Your task to perform on an android device: Add "energizer triple a" to the cart on bestbuy, then select checkout. Image 0: 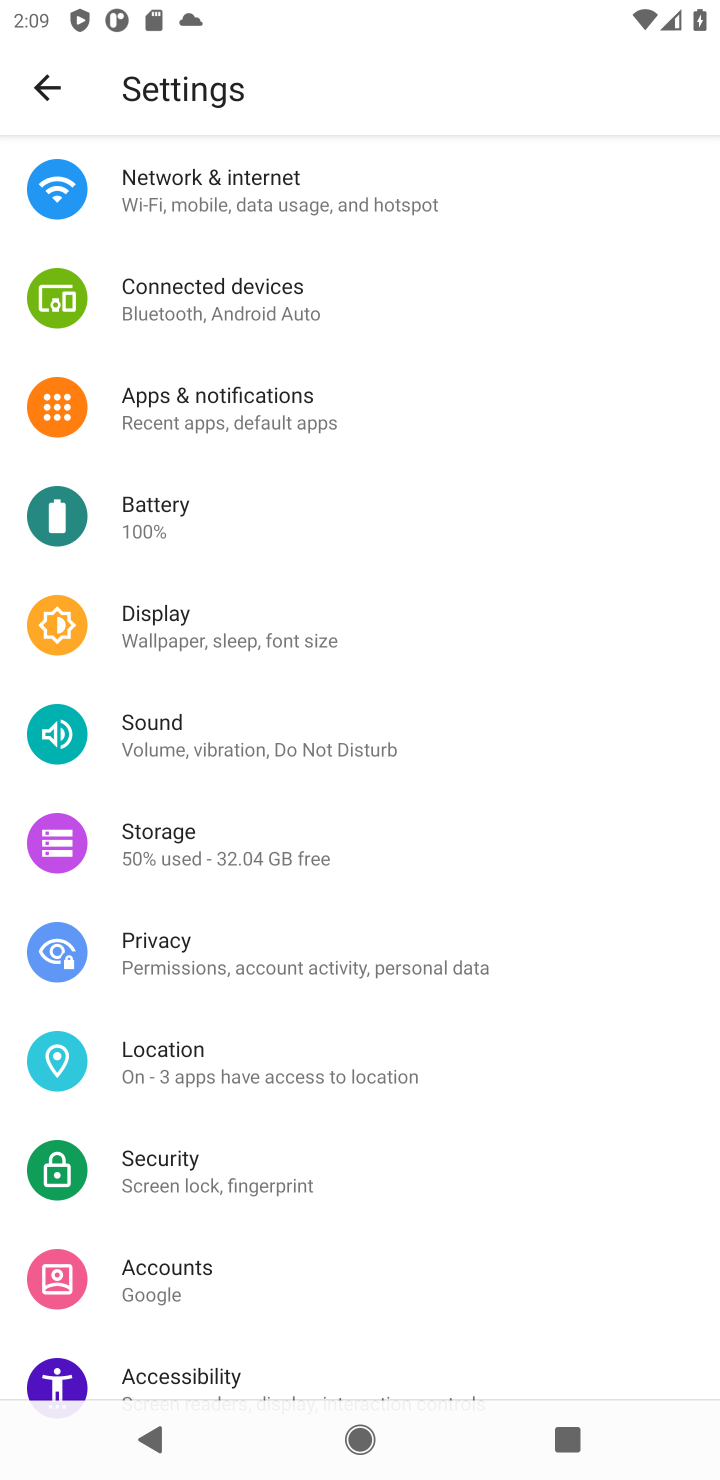
Step 0: press home button
Your task to perform on an android device: Add "energizer triple a" to the cart on bestbuy, then select checkout. Image 1: 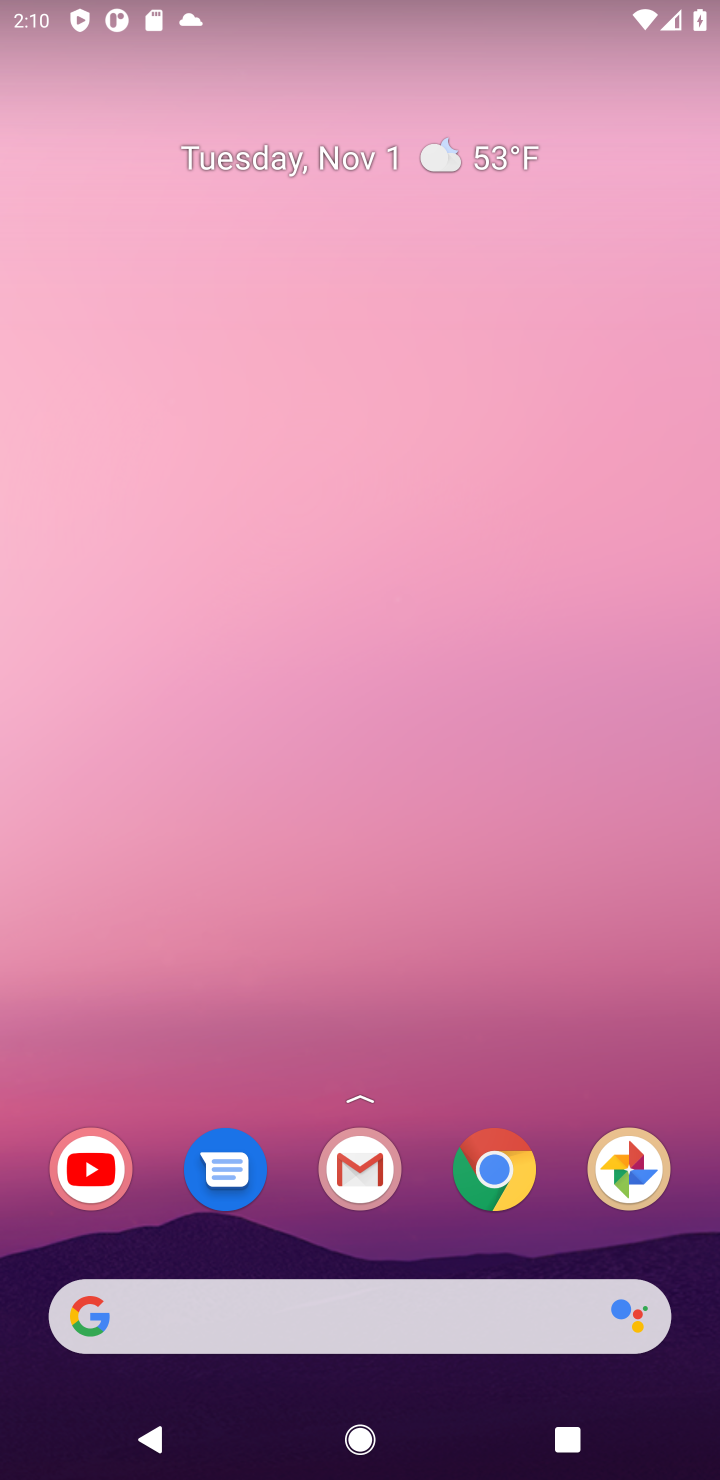
Step 1: click (505, 1184)
Your task to perform on an android device: Add "energizer triple a" to the cart on bestbuy, then select checkout. Image 2: 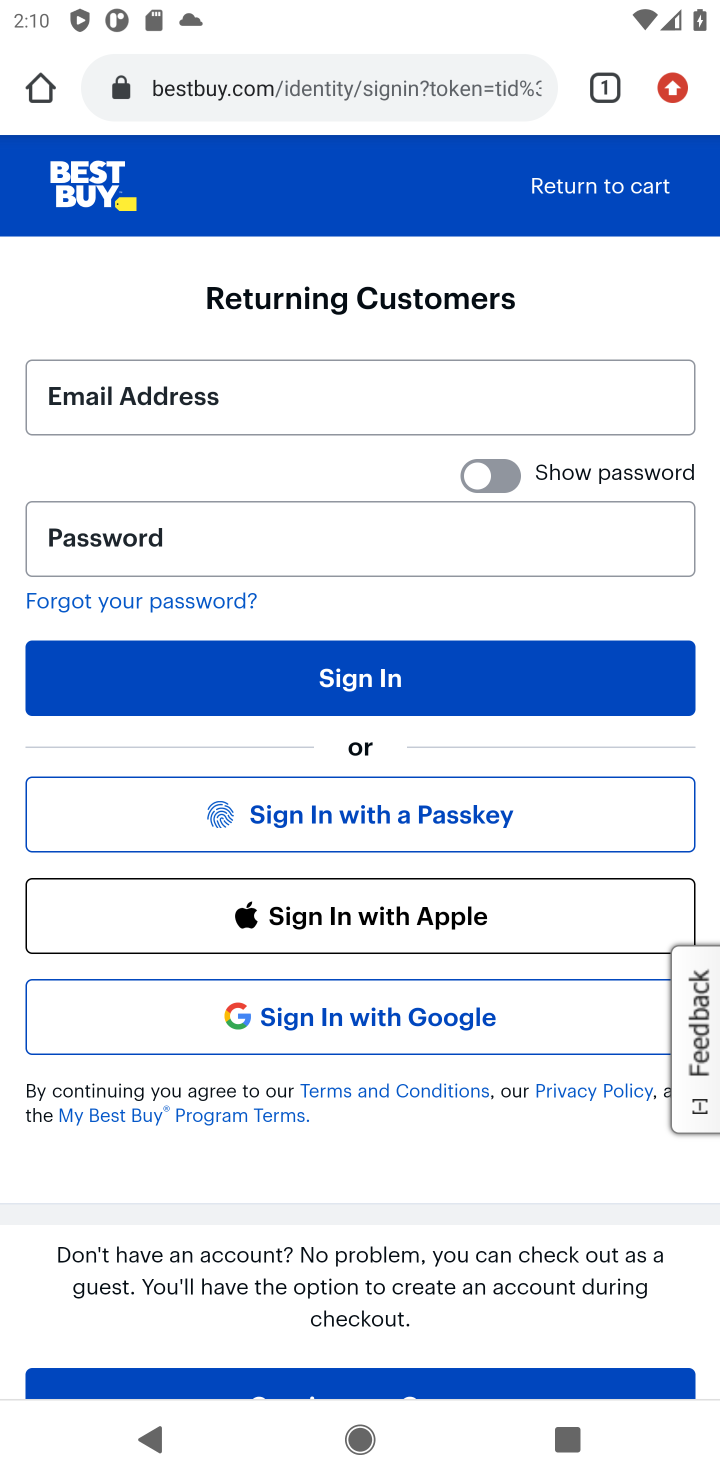
Step 2: click (583, 181)
Your task to perform on an android device: Add "energizer triple a" to the cart on bestbuy, then select checkout. Image 3: 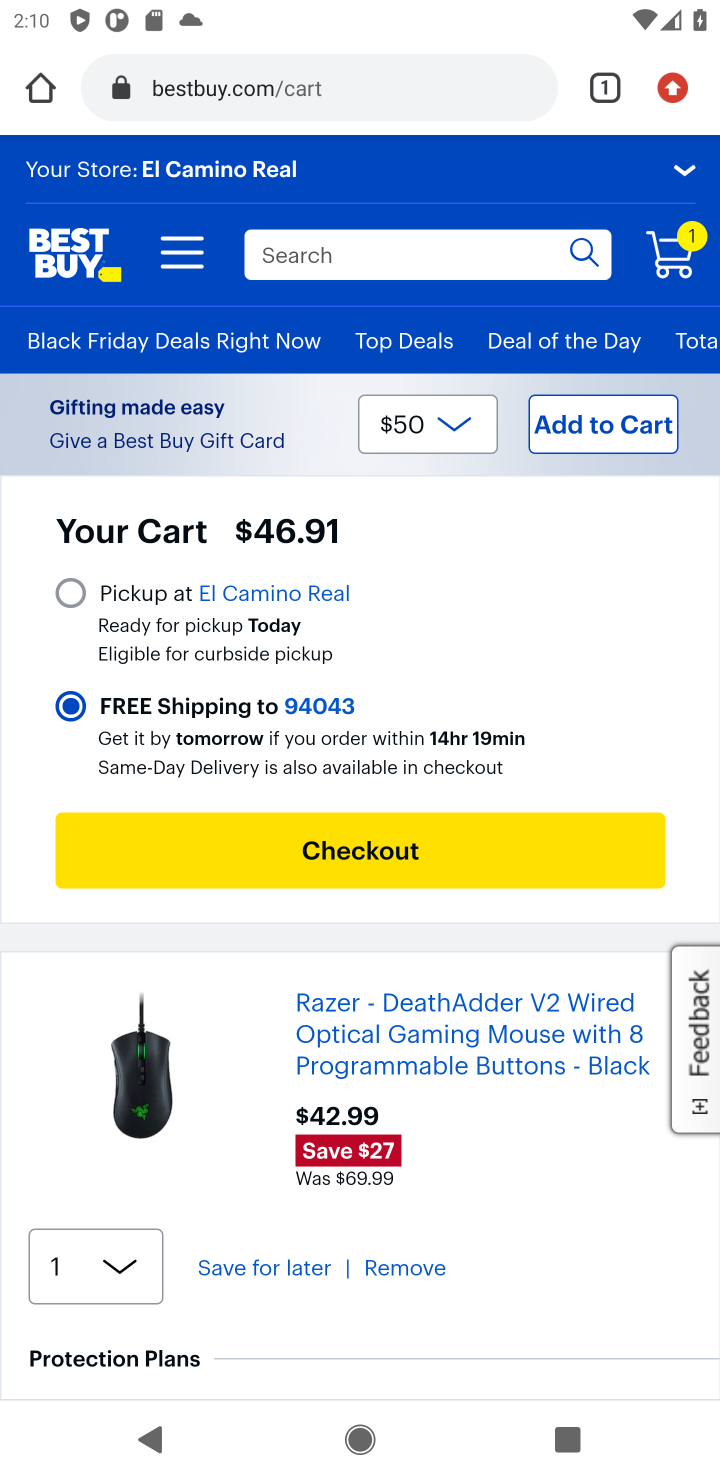
Step 3: click (265, 69)
Your task to perform on an android device: Add "energizer triple a" to the cart on bestbuy, then select checkout. Image 4: 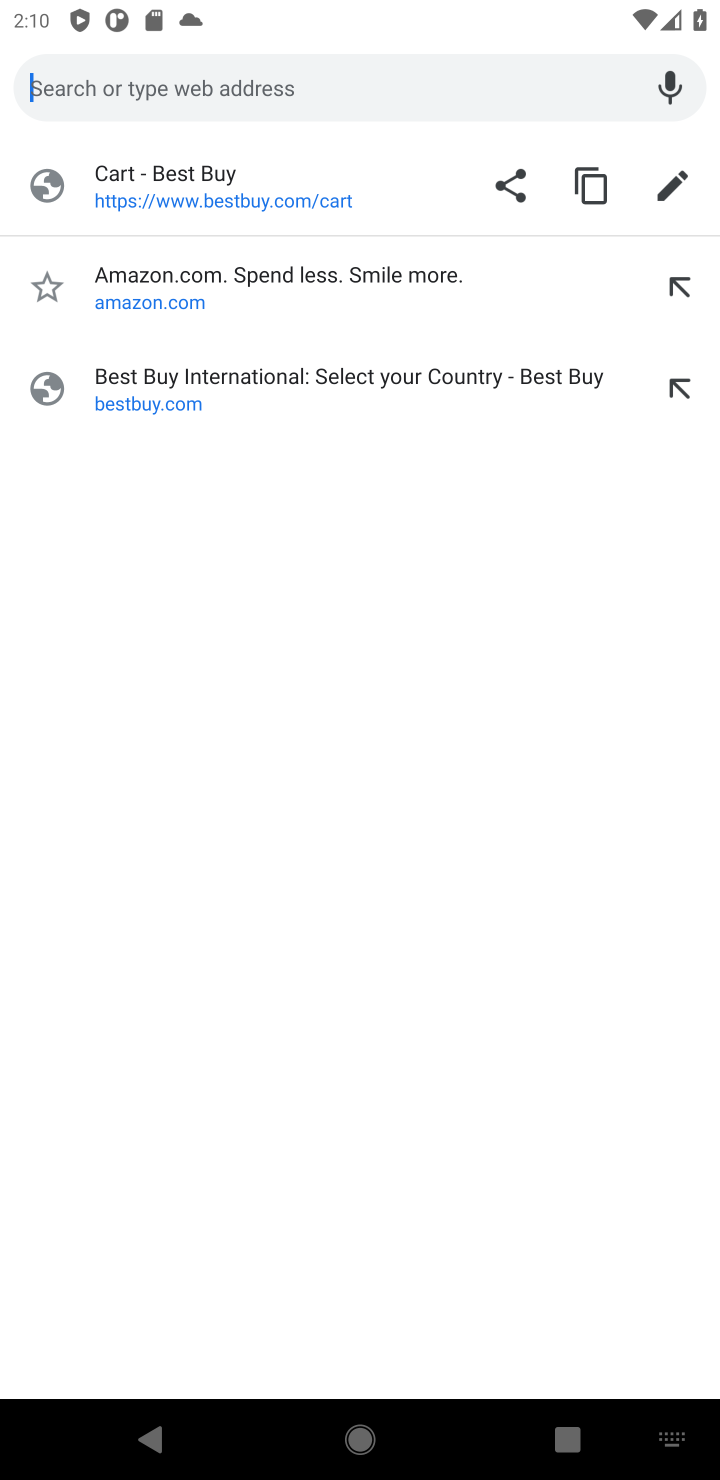
Step 4: click (432, 235)
Your task to perform on an android device: Add "energizer triple a" to the cart on bestbuy, then select checkout. Image 5: 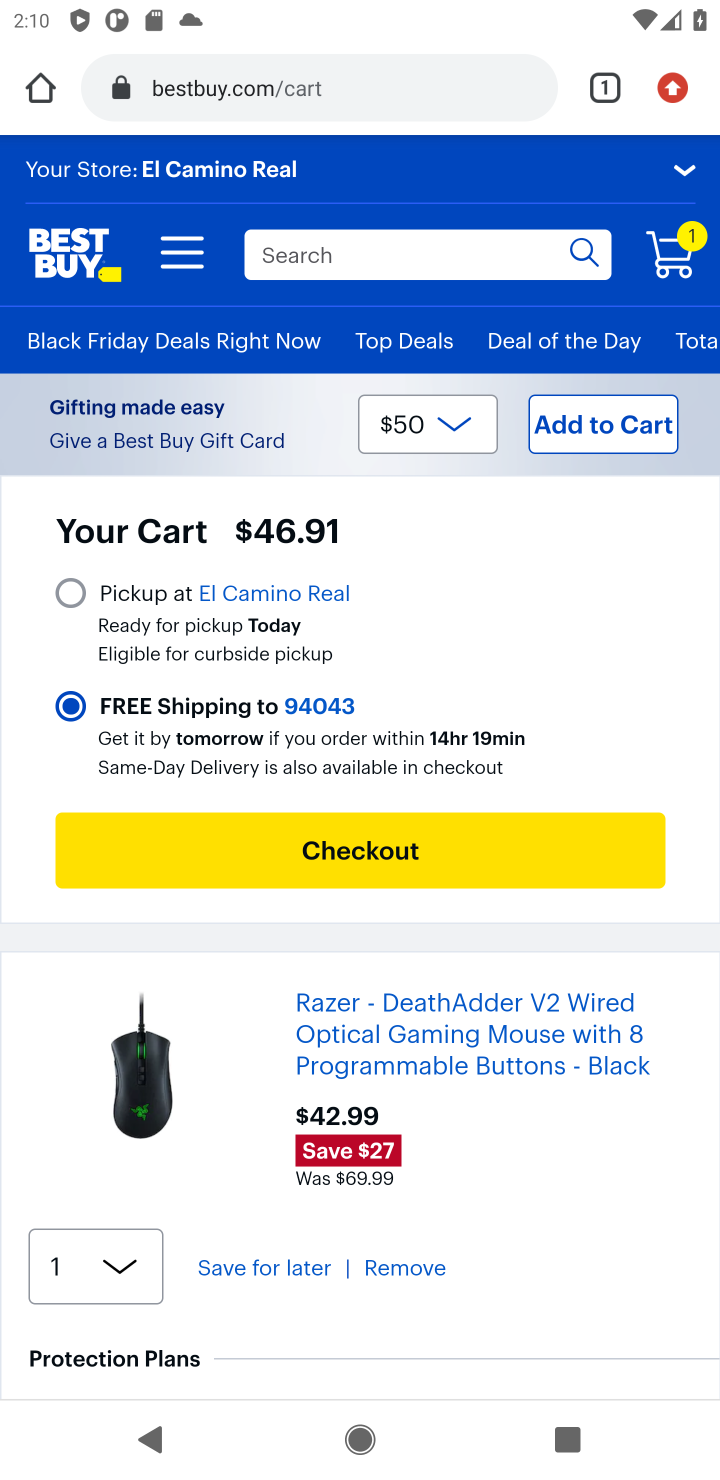
Step 5: press back button
Your task to perform on an android device: Add "energizer triple a" to the cart on bestbuy, then select checkout. Image 6: 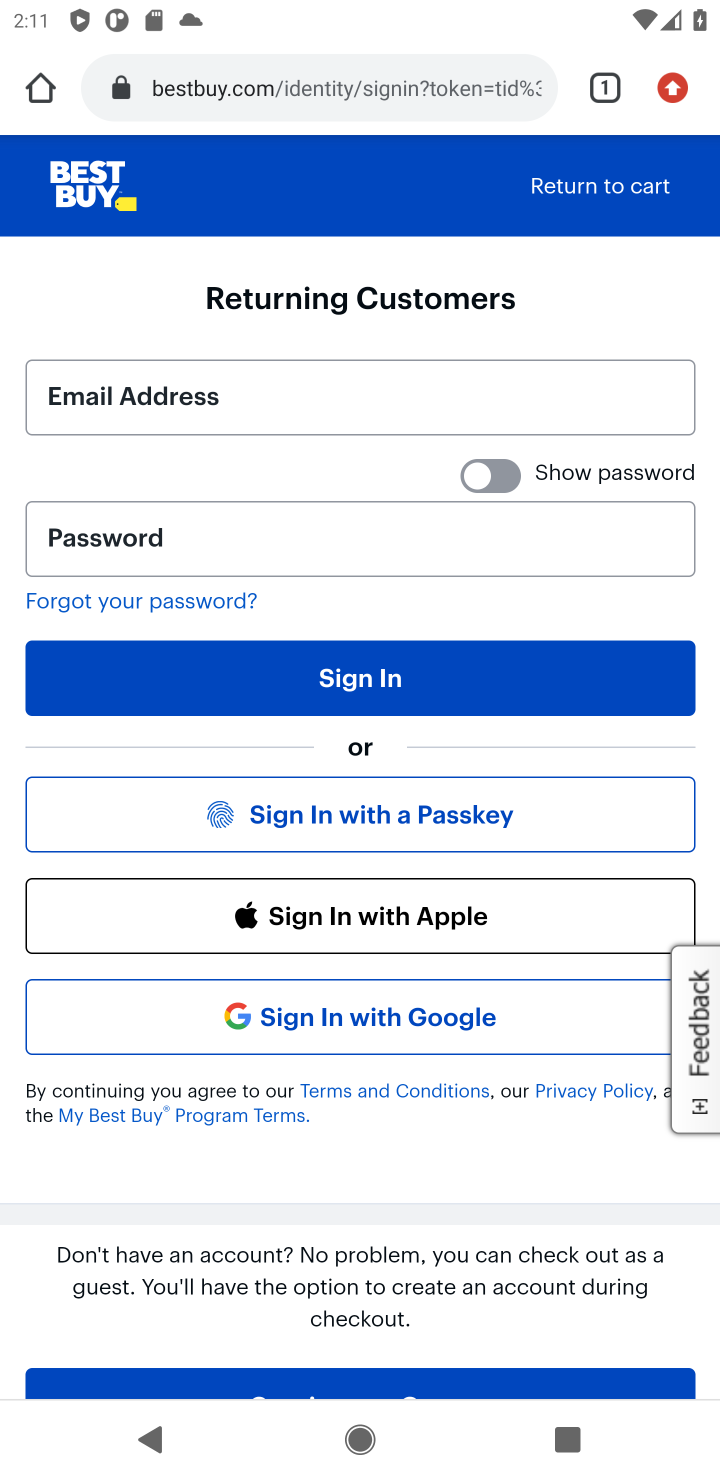
Step 6: click (594, 184)
Your task to perform on an android device: Add "energizer triple a" to the cart on bestbuy, then select checkout. Image 7: 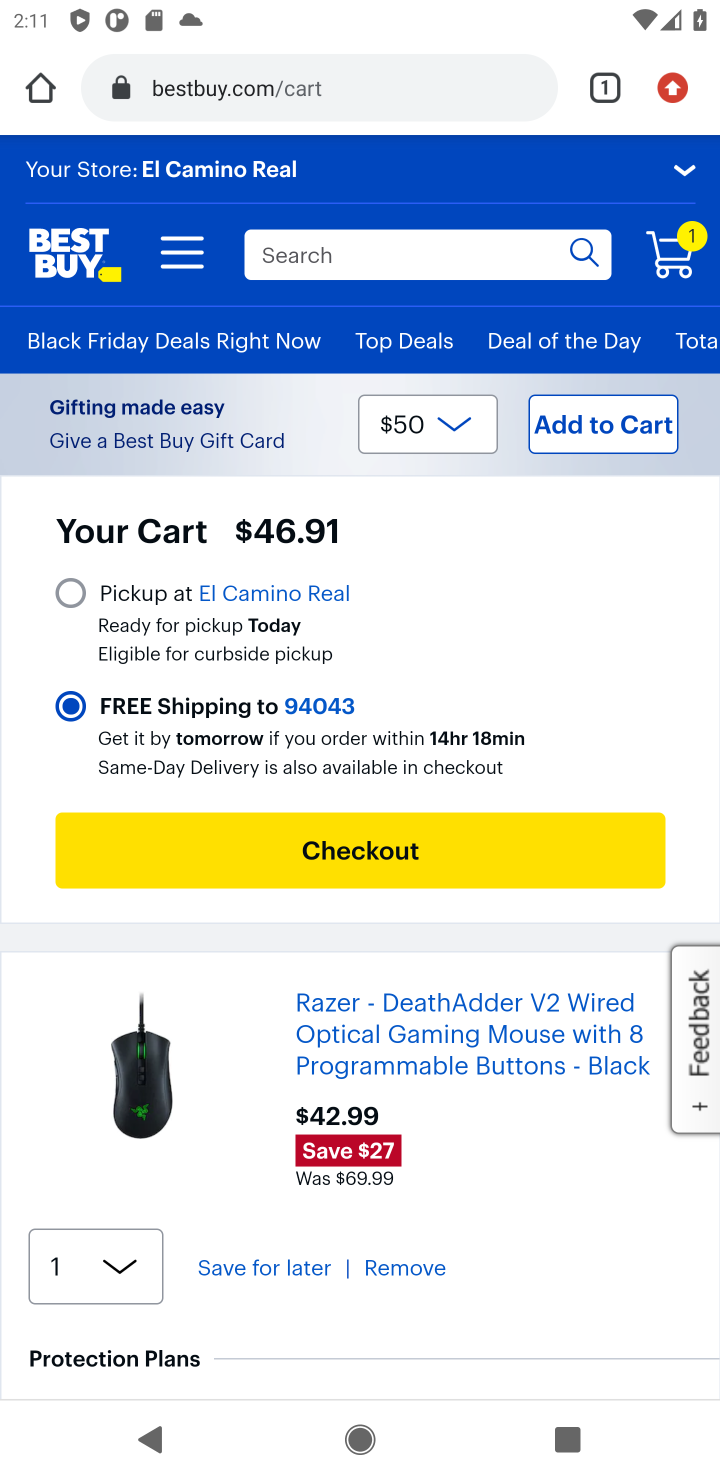
Step 7: click (418, 256)
Your task to perform on an android device: Add "energizer triple a" to the cart on bestbuy, then select checkout. Image 8: 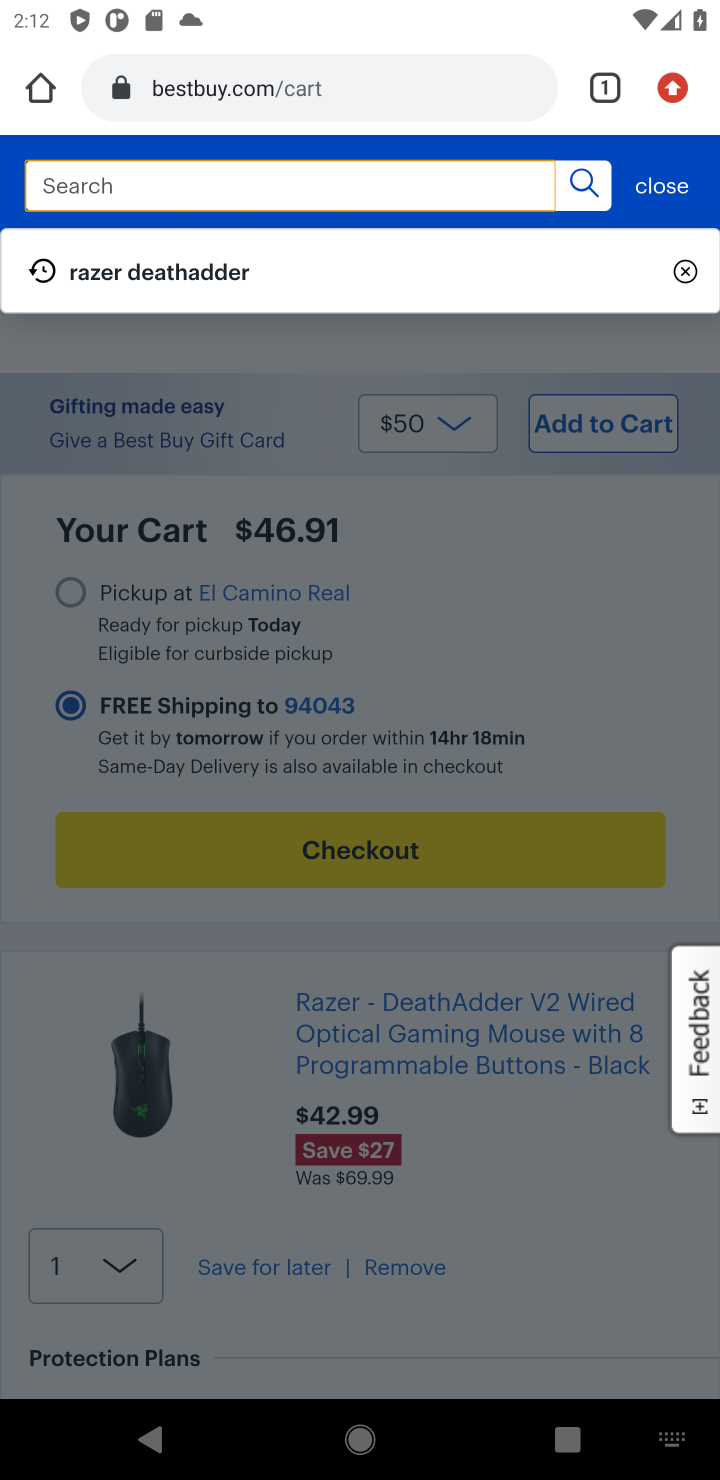
Step 8: type "energizer triple a"
Your task to perform on an android device: Add "energizer triple a" to the cart on bestbuy, then select checkout. Image 9: 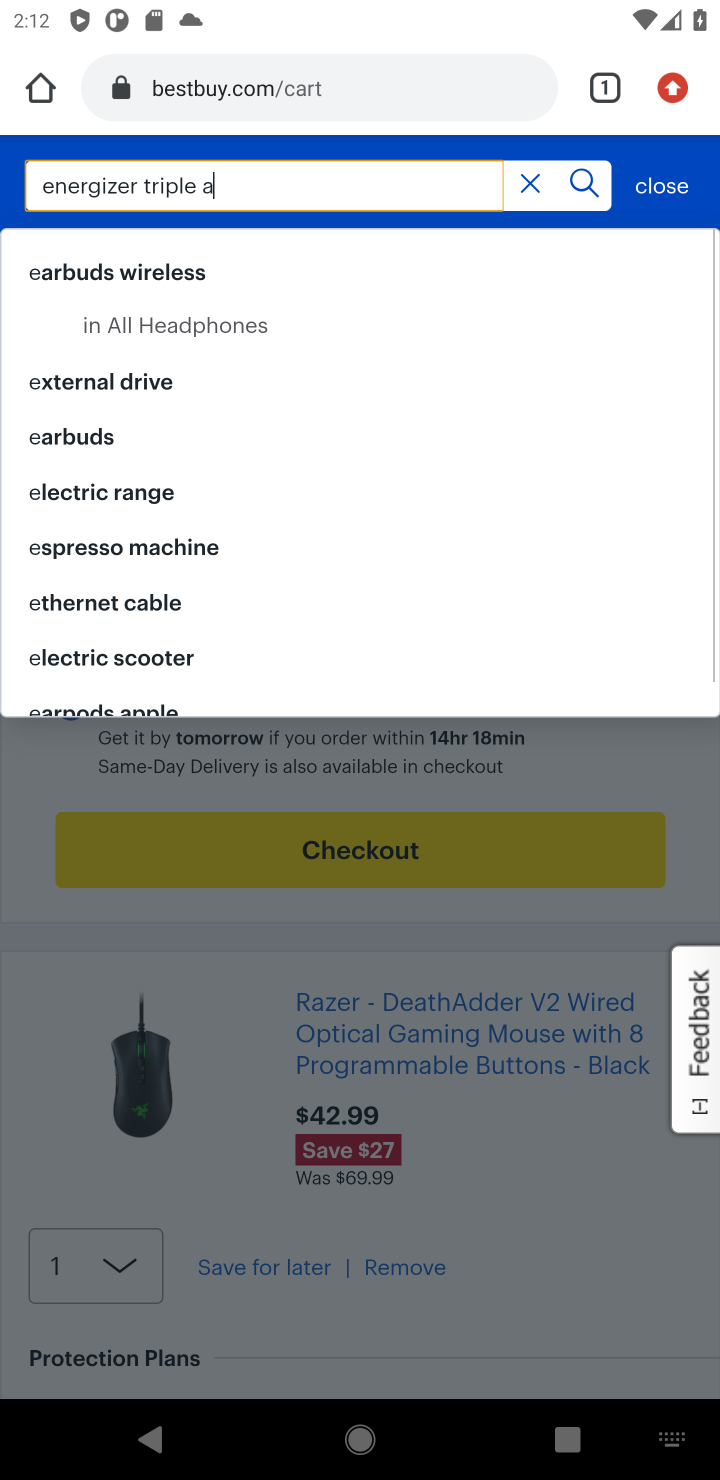
Step 9: type ""
Your task to perform on an android device: Add "energizer triple a" to the cart on bestbuy, then select checkout. Image 10: 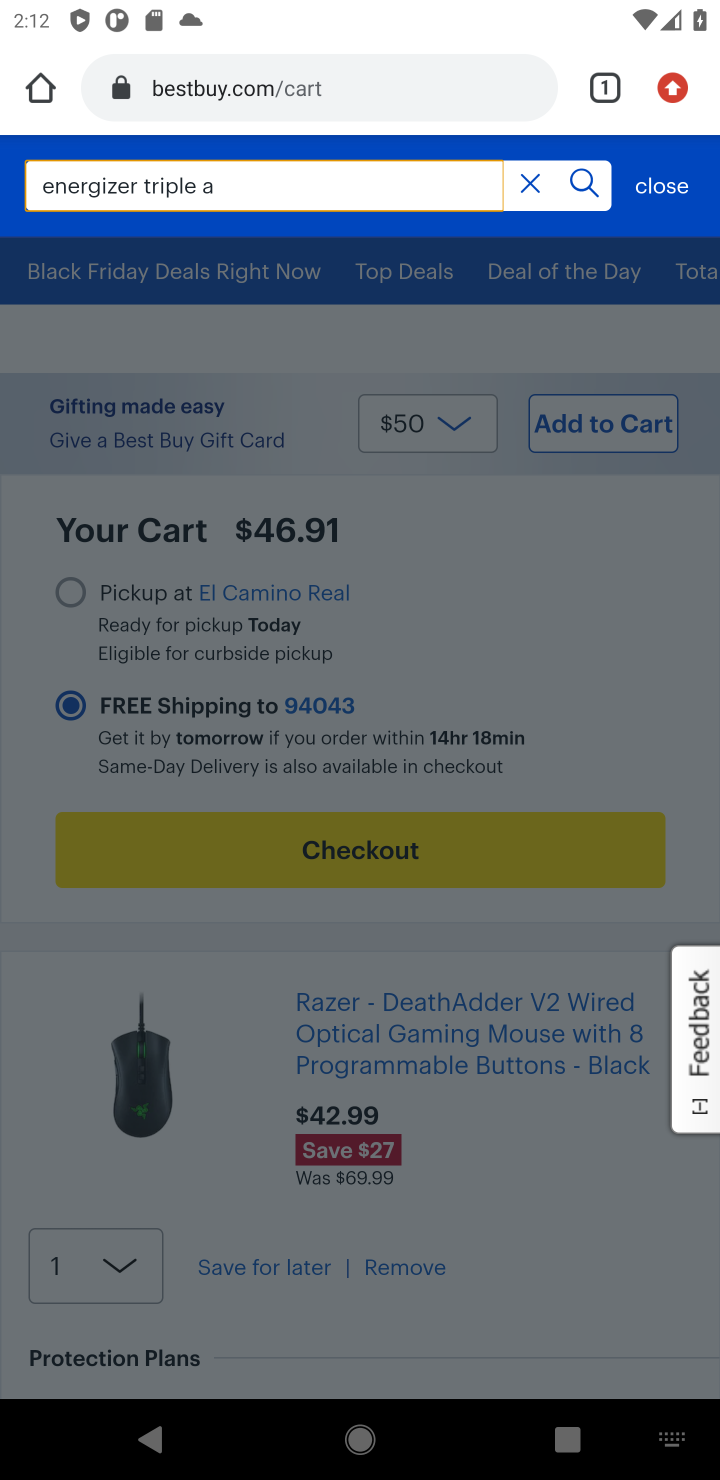
Step 10: click (589, 186)
Your task to perform on an android device: Add "energizer triple a" to the cart on bestbuy, then select checkout. Image 11: 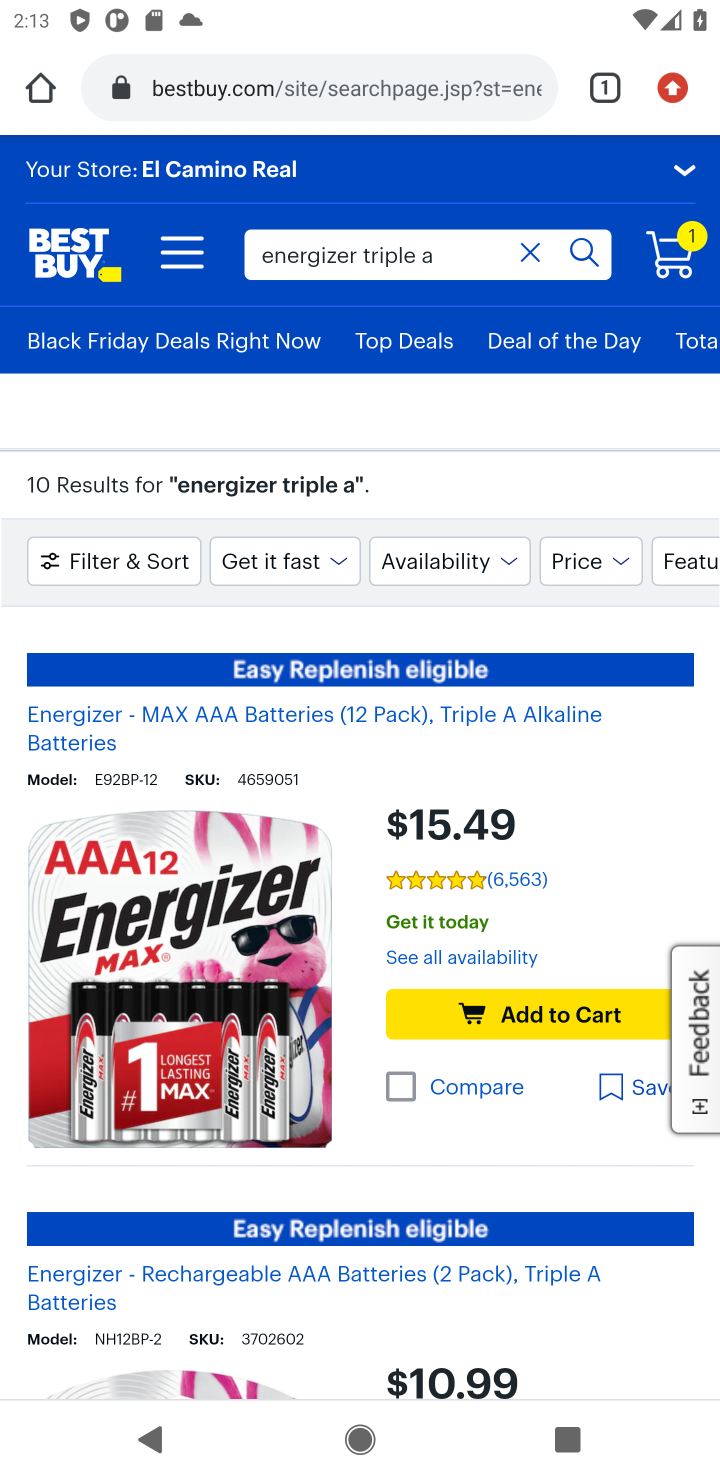
Step 11: click (568, 1026)
Your task to perform on an android device: Add "energizer triple a" to the cart on bestbuy, then select checkout. Image 12: 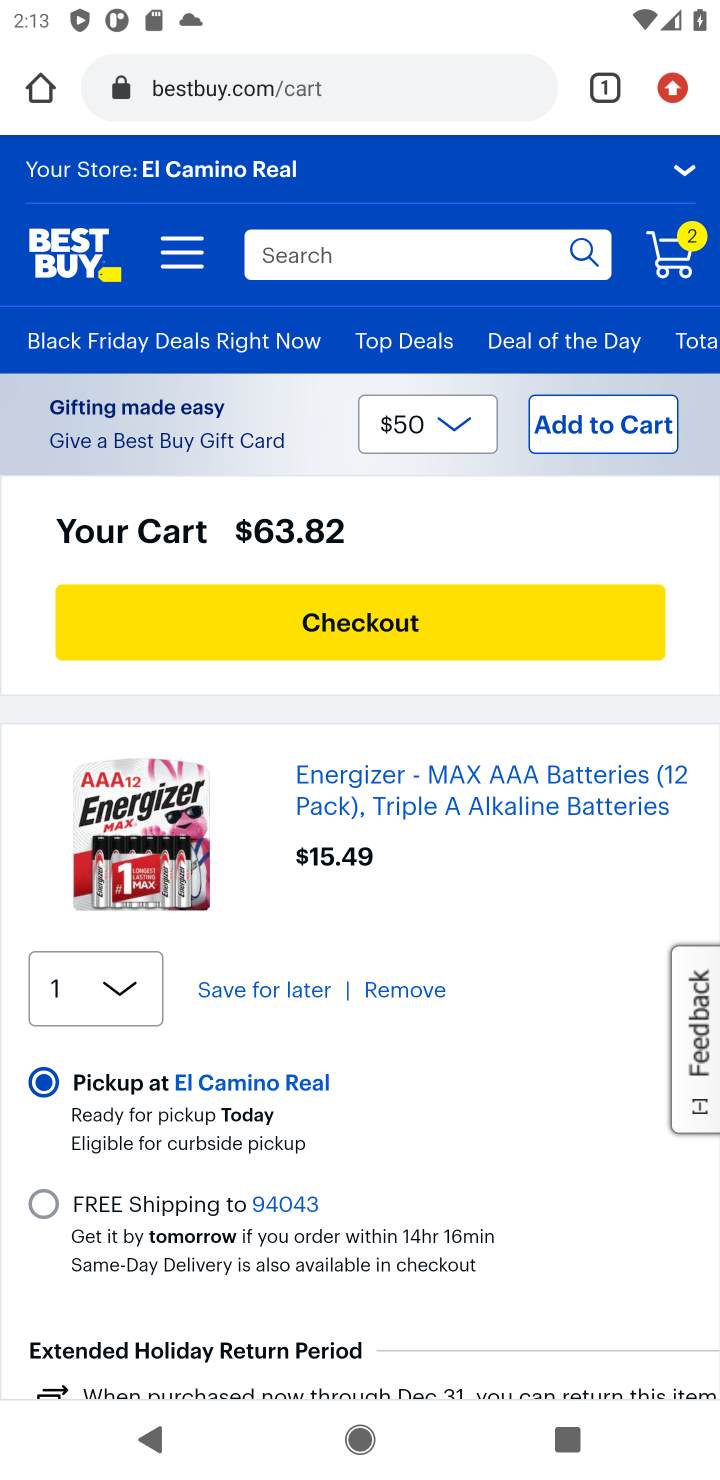
Step 12: click (455, 608)
Your task to perform on an android device: Add "energizer triple a" to the cart on bestbuy, then select checkout. Image 13: 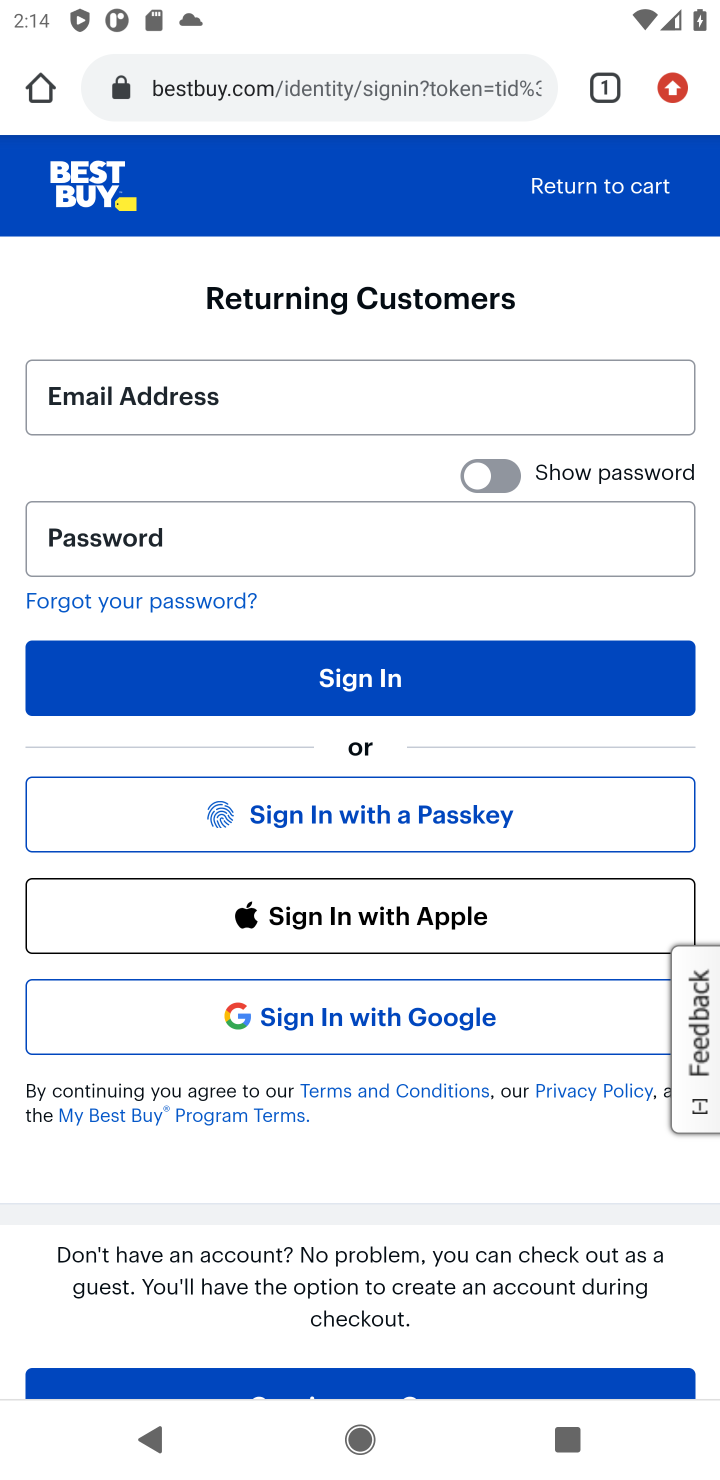
Step 13: task complete